Your task to perform on an android device: Open CNN.com Image 0: 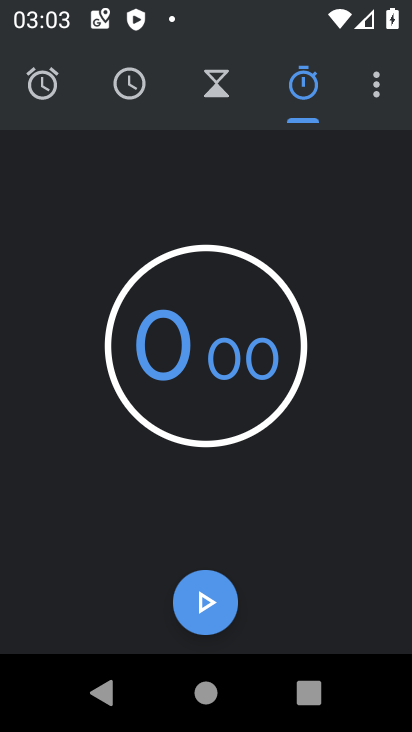
Step 0: press home button
Your task to perform on an android device: Open CNN.com Image 1: 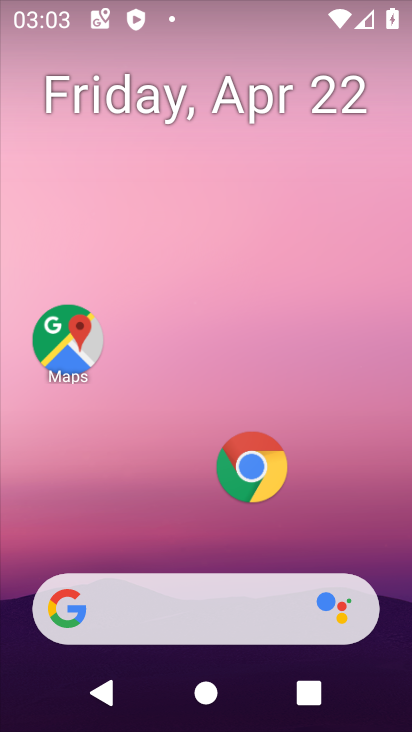
Step 1: click (257, 470)
Your task to perform on an android device: Open CNN.com Image 2: 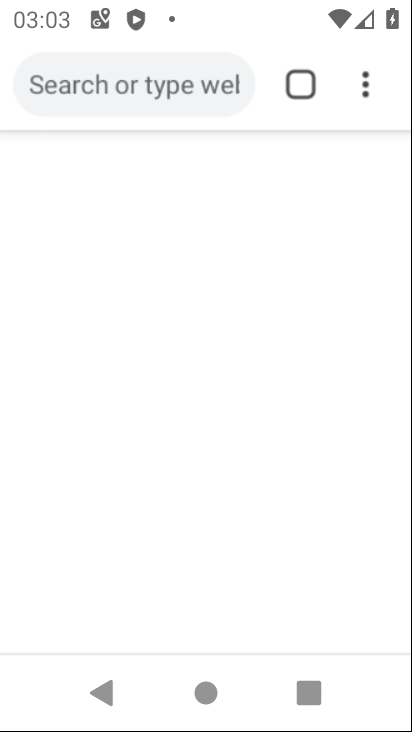
Step 2: click (102, 84)
Your task to perform on an android device: Open CNN.com Image 3: 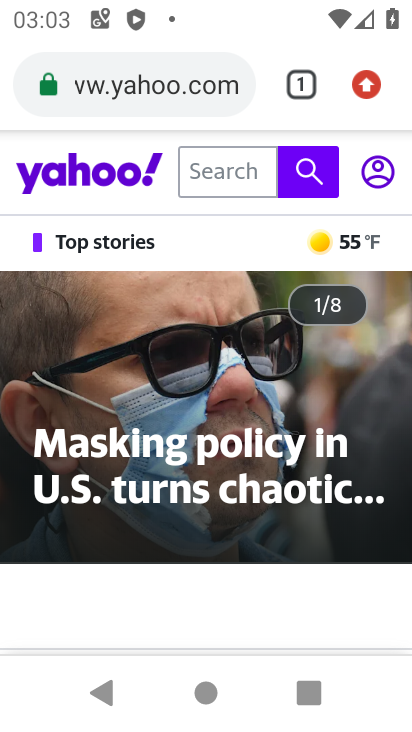
Step 3: click (201, 87)
Your task to perform on an android device: Open CNN.com Image 4: 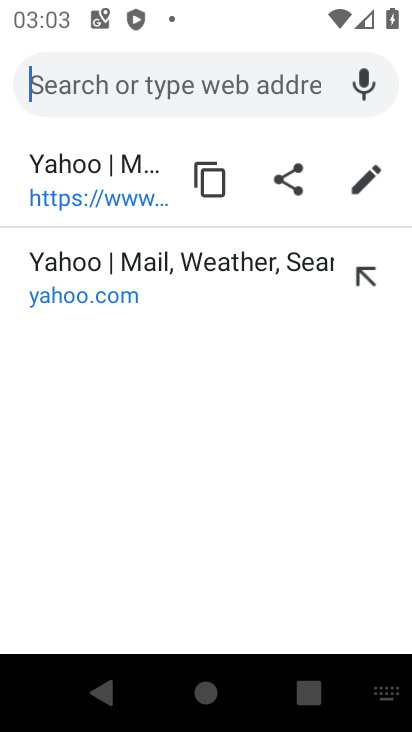
Step 4: type "CNN.com"
Your task to perform on an android device: Open CNN.com Image 5: 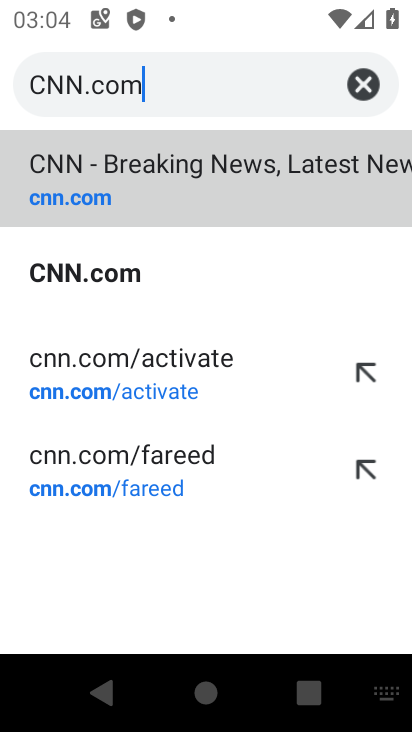
Step 5: click (160, 276)
Your task to perform on an android device: Open CNN.com Image 6: 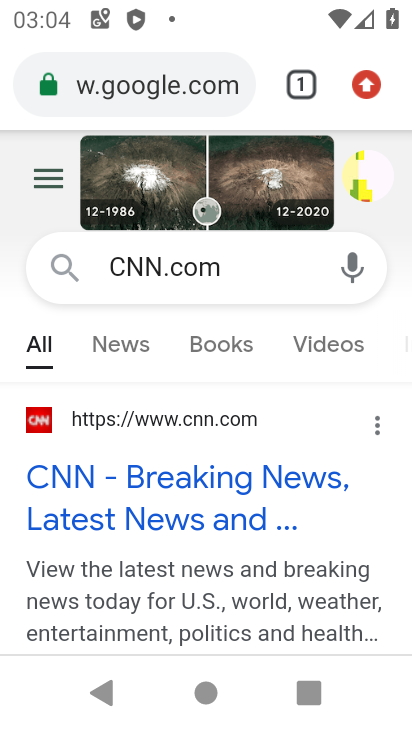
Step 6: task complete